Your task to perform on an android device: Search for Mexican restaurants on Maps Image 0: 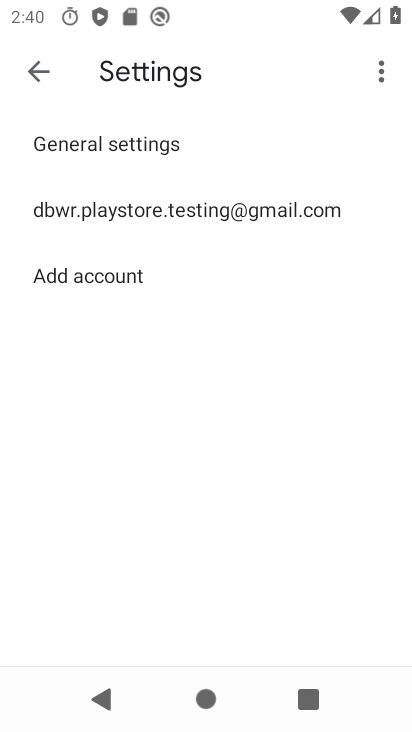
Step 0: press home button
Your task to perform on an android device: Search for Mexican restaurants on Maps Image 1: 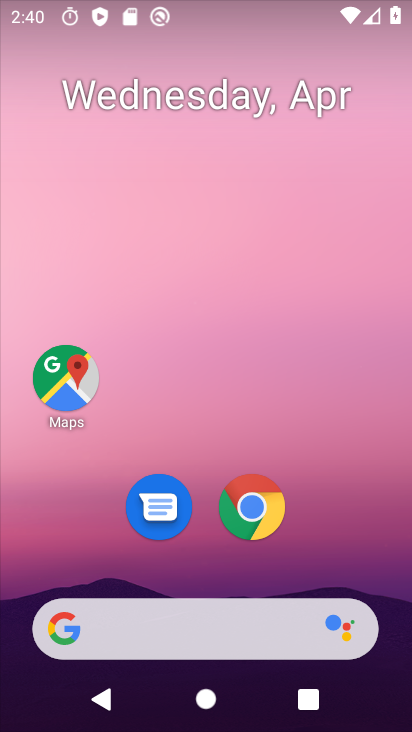
Step 1: click (67, 388)
Your task to perform on an android device: Search for Mexican restaurants on Maps Image 2: 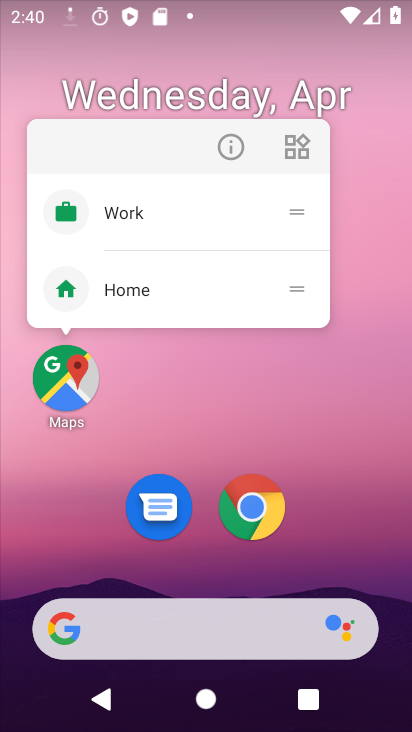
Step 2: click (52, 385)
Your task to perform on an android device: Search for Mexican restaurants on Maps Image 3: 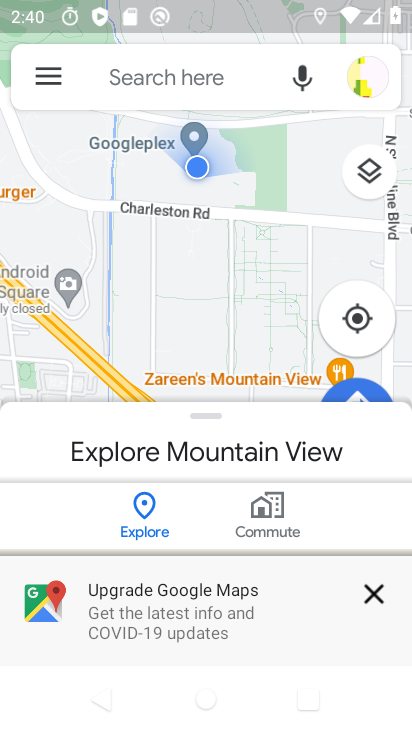
Step 3: click (188, 84)
Your task to perform on an android device: Search for Mexican restaurants on Maps Image 4: 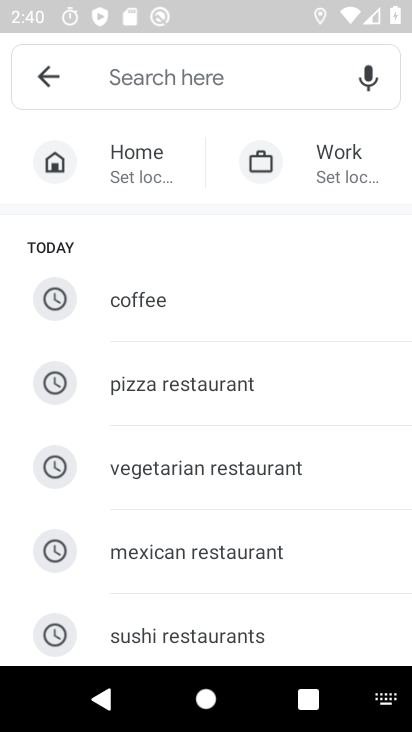
Step 4: click (157, 552)
Your task to perform on an android device: Search for Mexican restaurants on Maps Image 5: 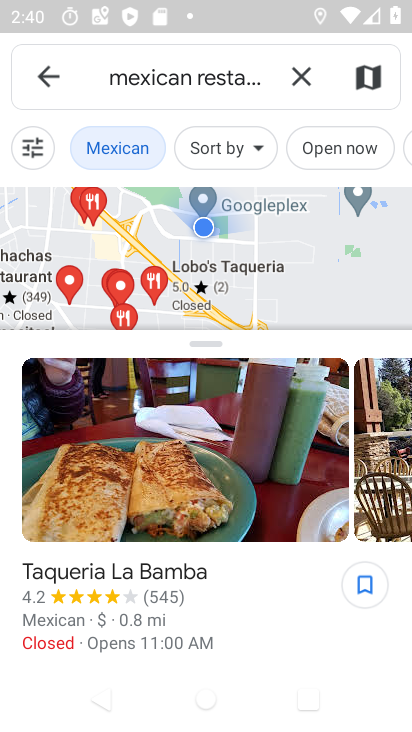
Step 5: task complete